Your task to perform on an android device: Open accessibility settings Image 0: 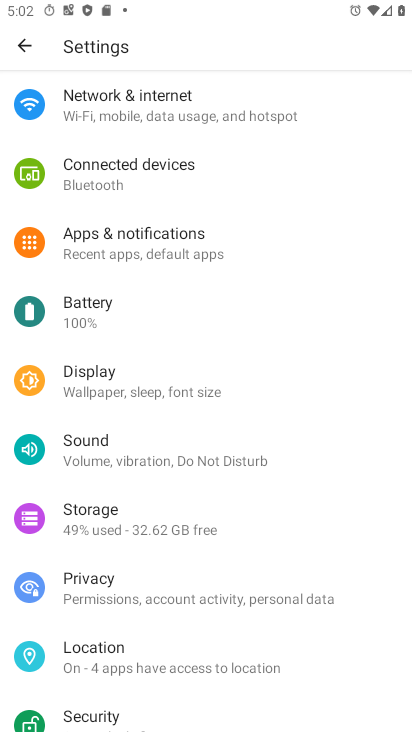
Step 0: press home button
Your task to perform on an android device: Open accessibility settings Image 1: 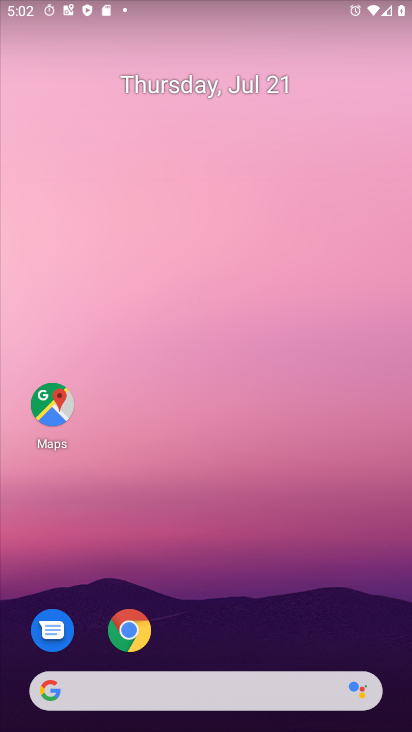
Step 1: drag from (165, 692) to (246, 32)
Your task to perform on an android device: Open accessibility settings Image 2: 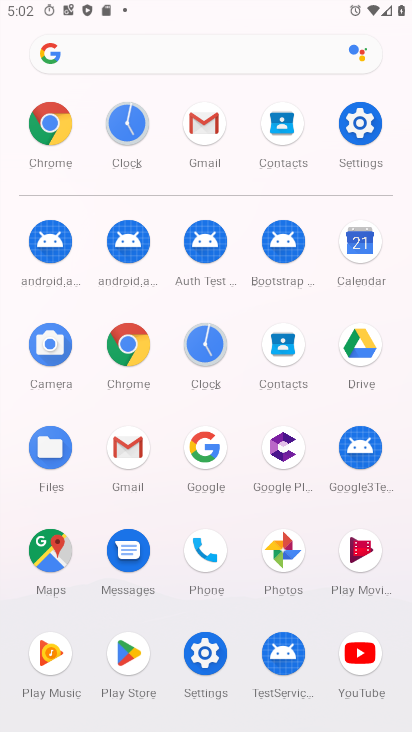
Step 2: click (358, 122)
Your task to perform on an android device: Open accessibility settings Image 3: 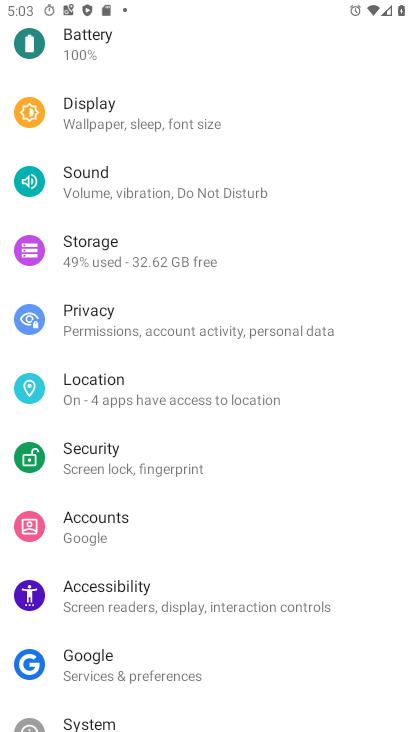
Step 3: click (117, 599)
Your task to perform on an android device: Open accessibility settings Image 4: 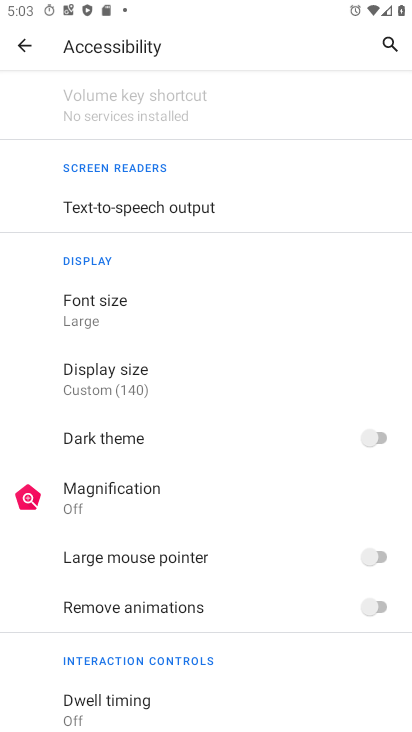
Step 4: task complete